Your task to perform on an android device: Go to sound settings Image 0: 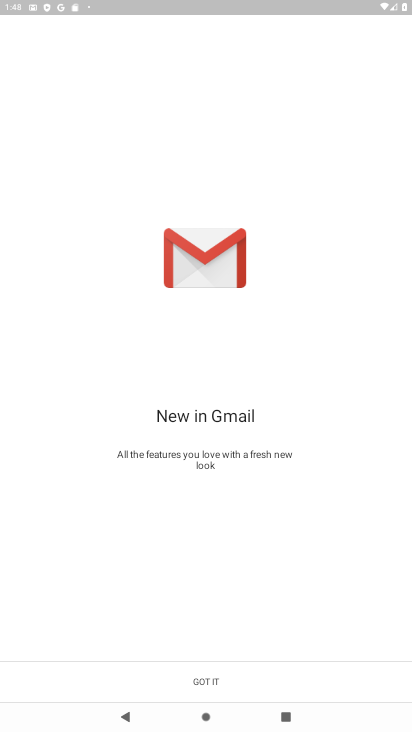
Step 0: press home button
Your task to perform on an android device: Go to sound settings Image 1: 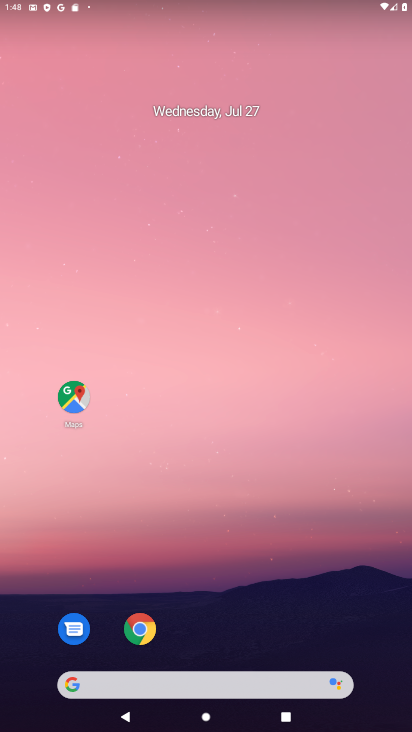
Step 1: drag from (241, 632) to (96, 90)
Your task to perform on an android device: Go to sound settings Image 2: 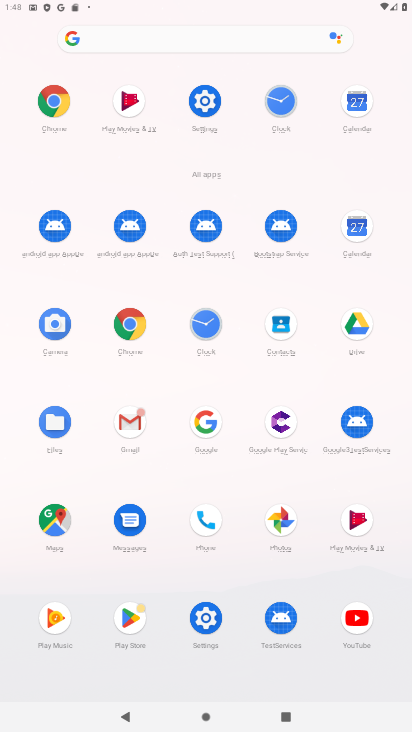
Step 2: click (176, 110)
Your task to perform on an android device: Go to sound settings Image 3: 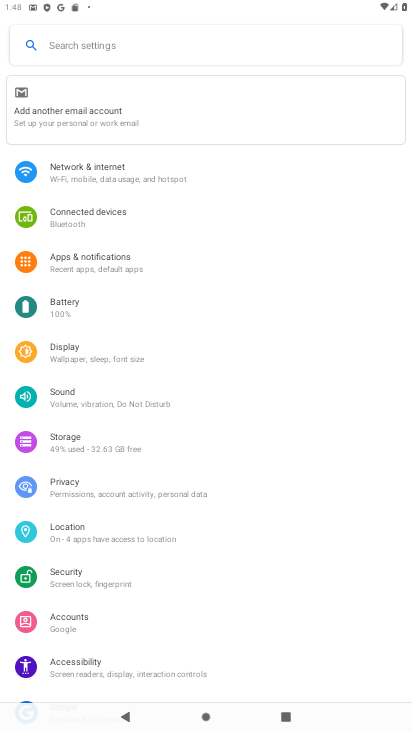
Step 3: click (111, 405)
Your task to perform on an android device: Go to sound settings Image 4: 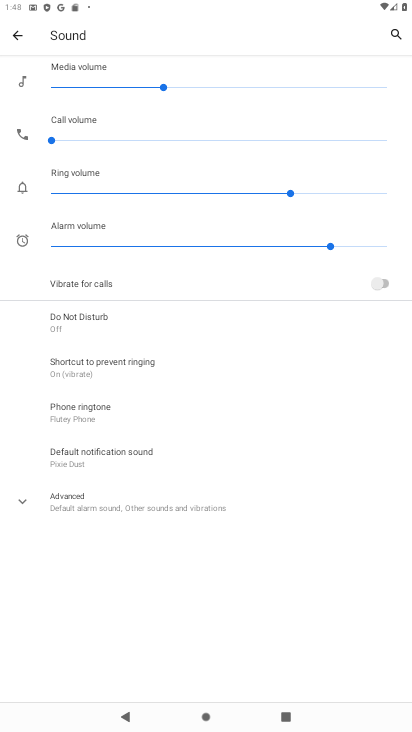
Step 4: task complete